Your task to perform on an android device: Show me recent news Image 0: 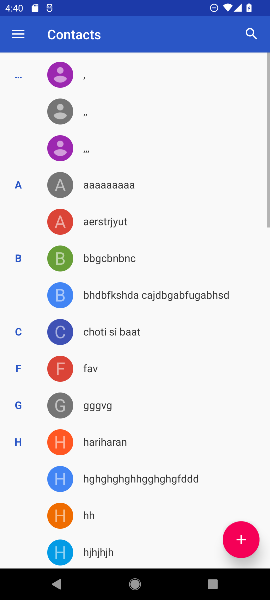
Step 0: press home button
Your task to perform on an android device: Show me recent news Image 1: 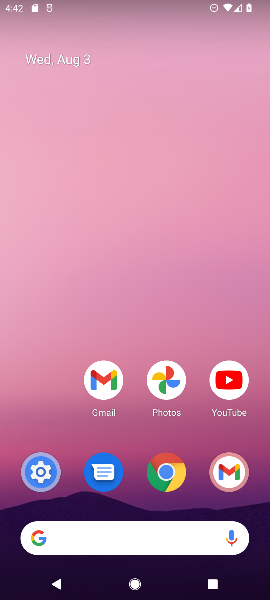
Step 1: drag from (191, 494) to (98, 7)
Your task to perform on an android device: Show me recent news Image 2: 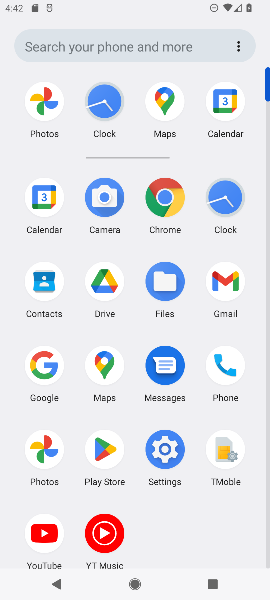
Step 2: click (47, 363)
Your task to perform on an android device: Show me recent news Image 3: 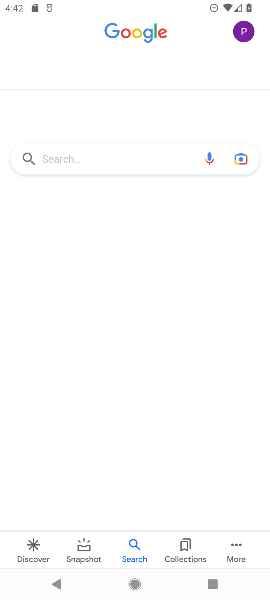
Step 3: click (63, 161)
Your task to perform on an android device: Show me recent news Image 4: 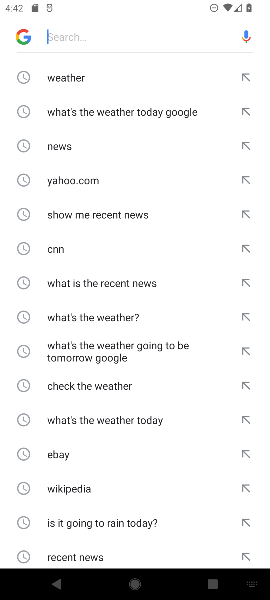
Step 4: type "Show me recent news"
Your task to perform on an android device: Show me recent news Image 5: 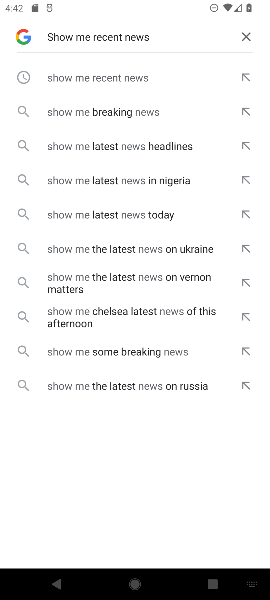
Step 5: click (88, 79)
Your task to perform on an android device: Show me recent news Image 6: 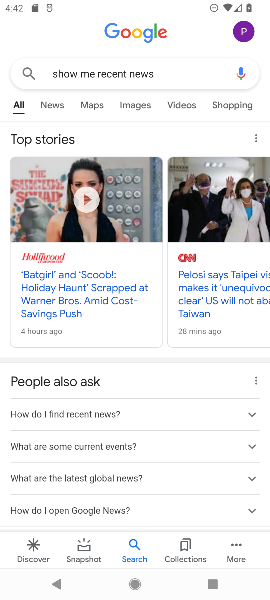
Step 6: task complete